Your task to perform on an android device: Go to Maps Image 0: 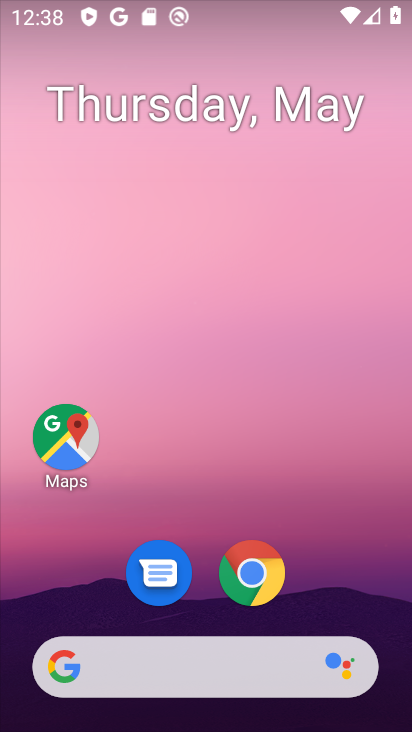
Step 0: drag from (322, 554) to (302, 9)
Your task to perform on an android device: Go to Maps Image 1: 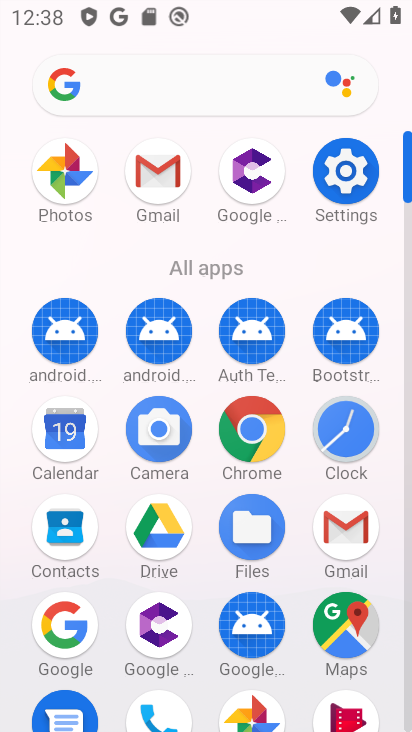
Step 1: drag from (28, 598) to (34, 306)
Your task to perform on an android device: Go to Maps Image 2: 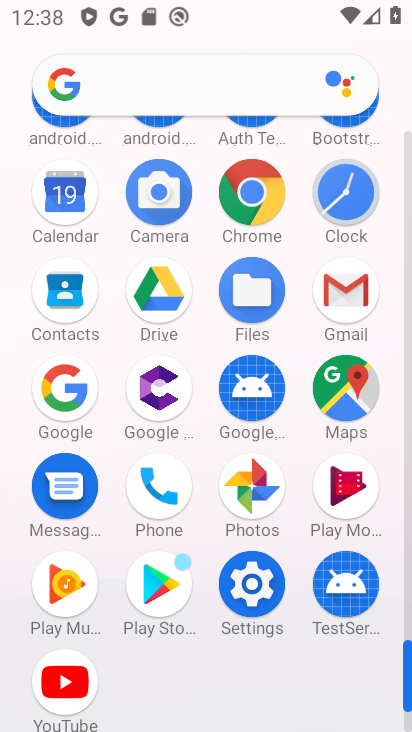
Step 2: click (345, 383)
Your task to perform on an android device: Go to Maps Image 3: 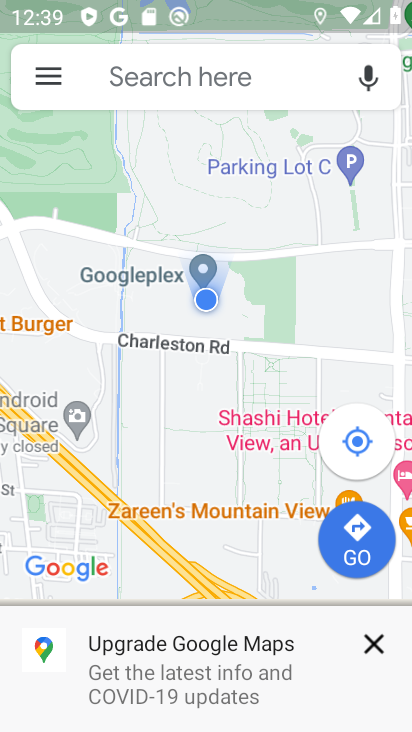
Step 3: task complete